Your task to perform on an android device: make emails show in primary in the gmail app Image 0: 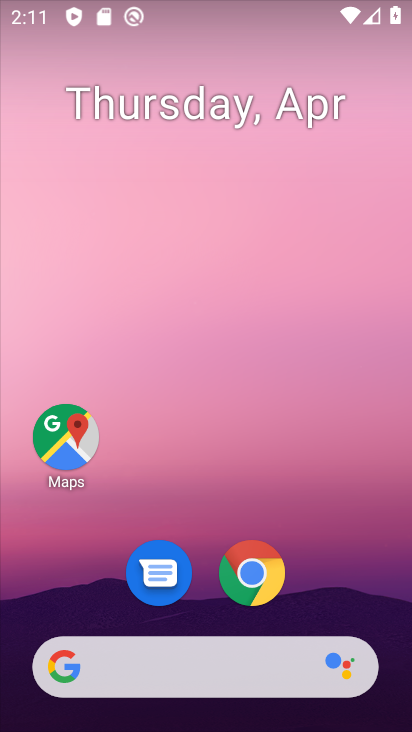
Step 0: drag from (346, 601) to (284, 104)
Your task to perform on an android device: make emails show in primary in the gmail app Image 1: 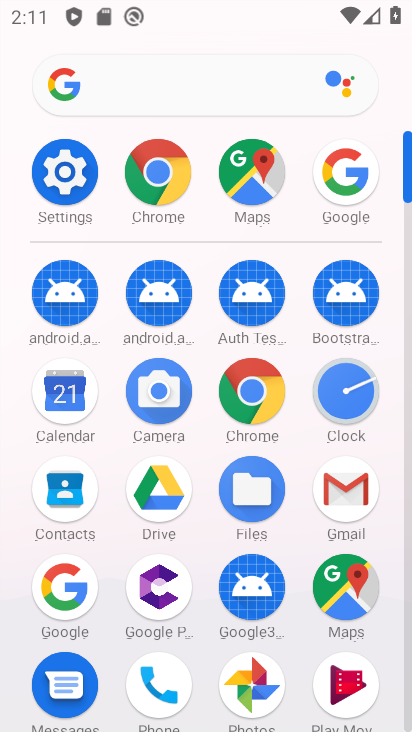
Step 1: click (344, 479)
Your task to perform on an android device: make emails show in primary in the gmail app Image 2: 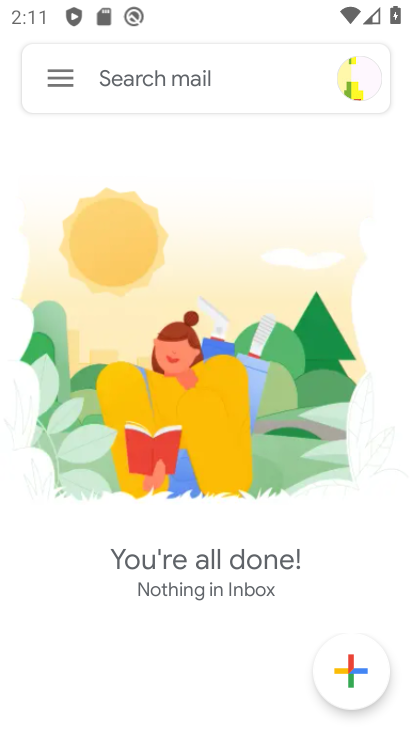
Step 2: click (57, 74)
Your task to perform on an android device: make emails show in primary in the gmail app Image 3: 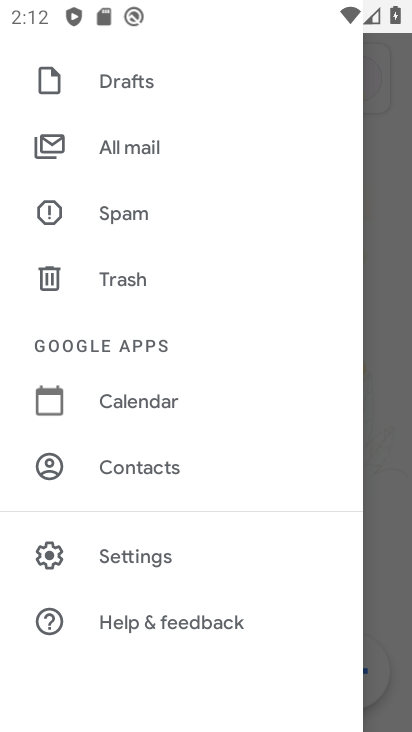
Step 3: task complete